Your task to perform on an android device: Open the calendar and show me this week's events? Image 0: 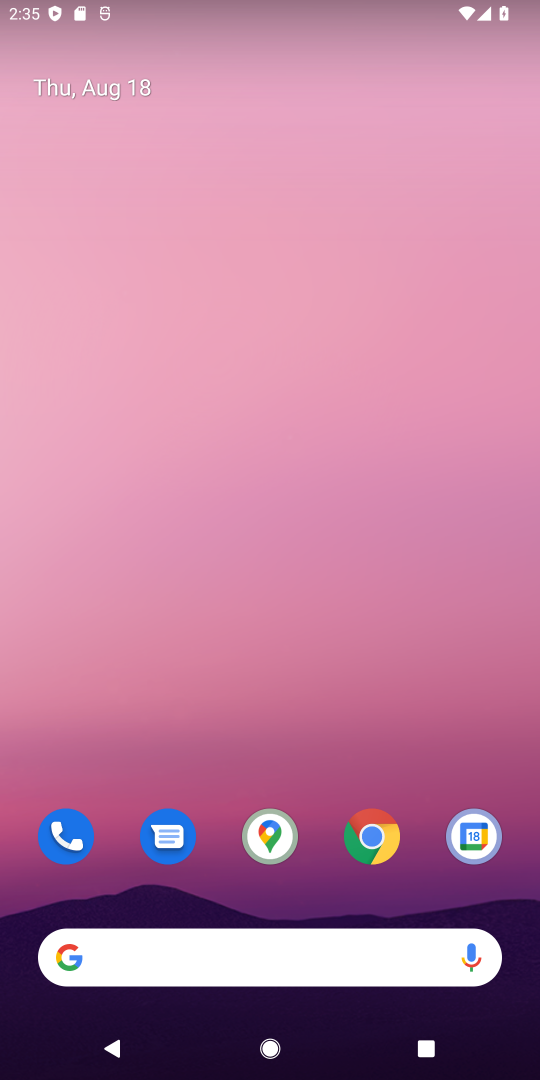
Step 0: drag from (208, 1005) to (263, 11)
Your task to perform on an android device: Open the calendar and show me this week's events? Image 1: 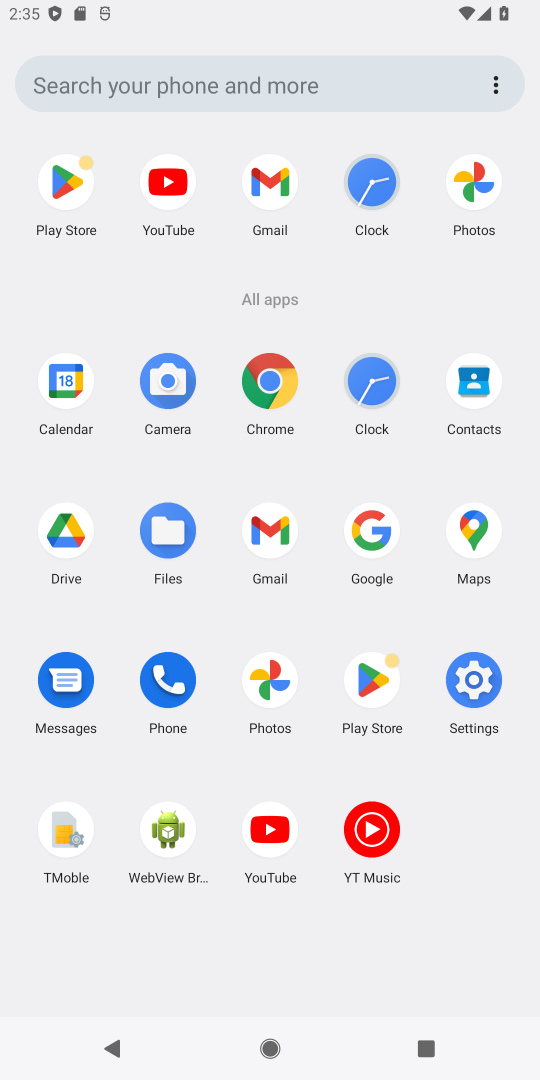
Step 1: click (56, 369)
Your task to perform on an android device: Open the calendar and show me this week's events? Image 2: 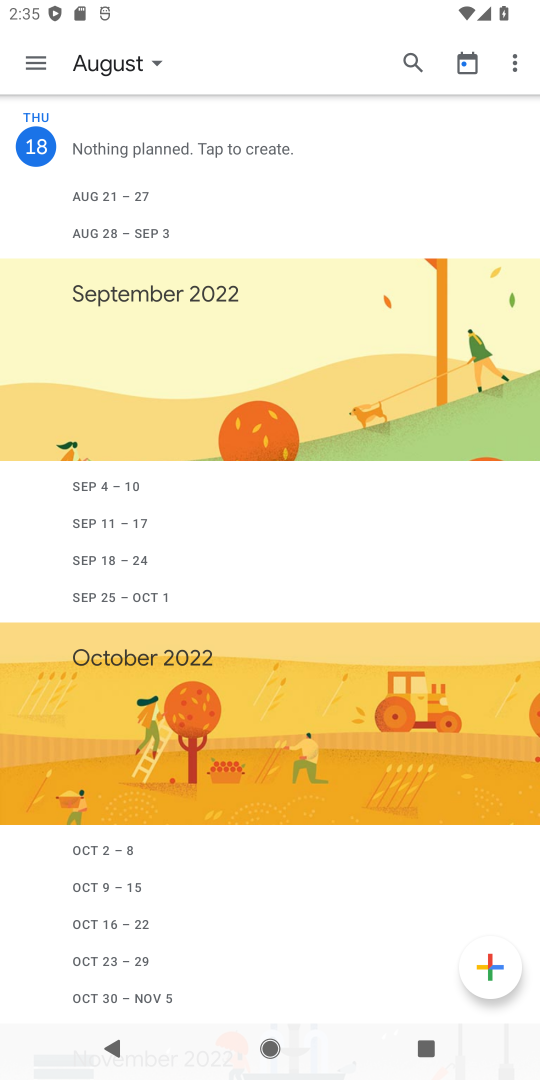
Step 2: click (32, 57)
Your task to perform on an android device: Open the calendar and show me this week's events? Image 3: 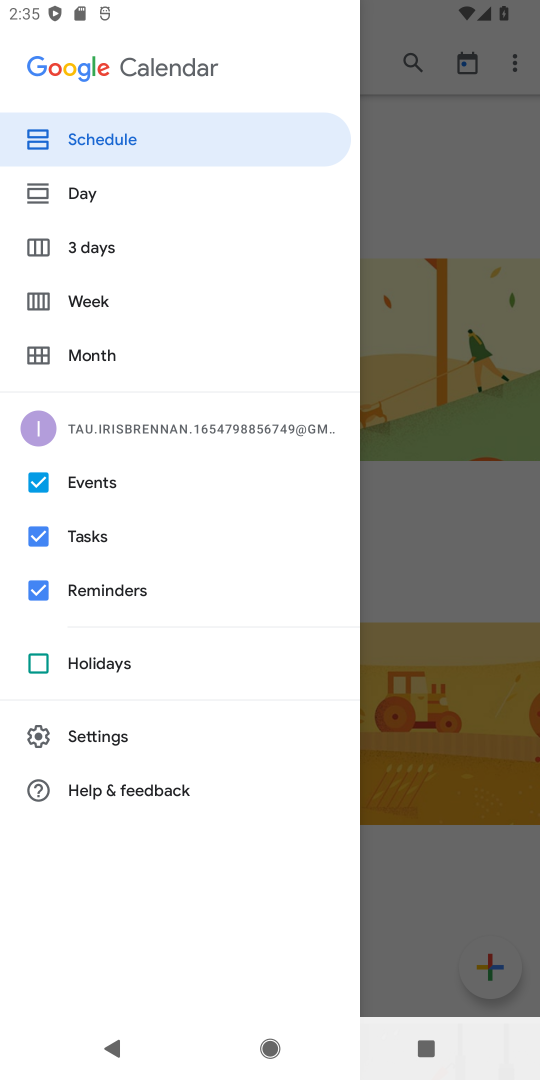
Step 3: click (155, 314)
Your task to perform on an android device: Open the calendar and show me this week's events? Image 4: 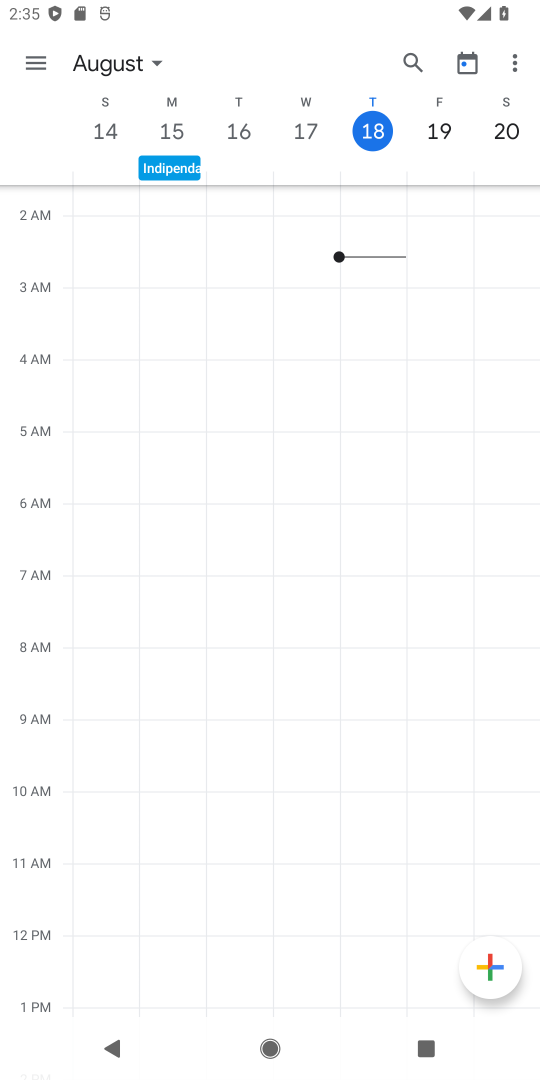
Step 4: drag from (479, 147) to (12, 87)
Your task to perform on an android device: Open the calendar and show me this week's events? Image 5: 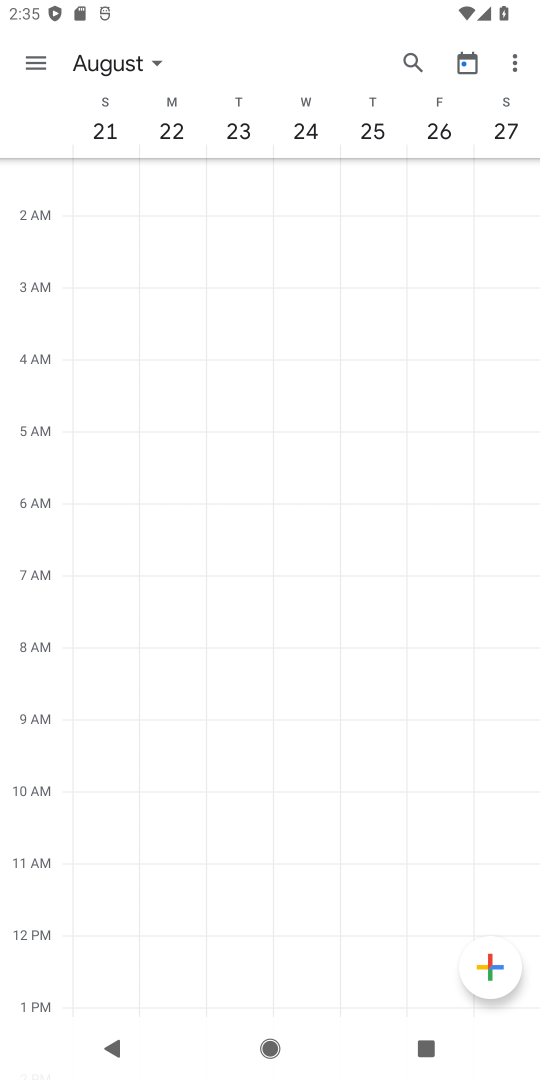
Step 5: drag from (496, 147) to (115, 7)
Your task to perform on an android device: Open the calendar and show me this week's events? Image 6: 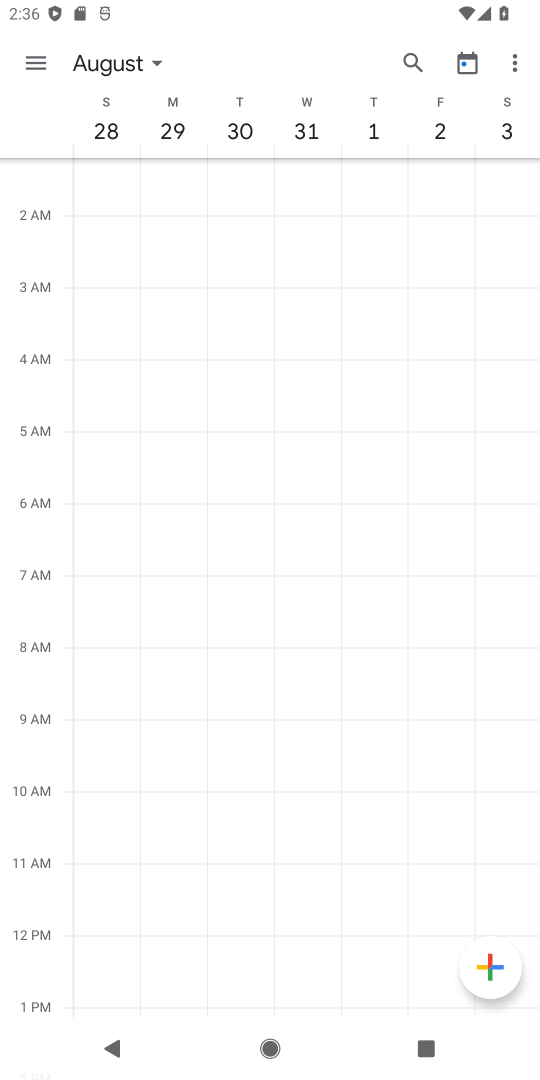
Step 6: drag from (475, 146) to (18, 133)
Your task to perform on an android device: Open the calendar and show me this week's events? Image 7: 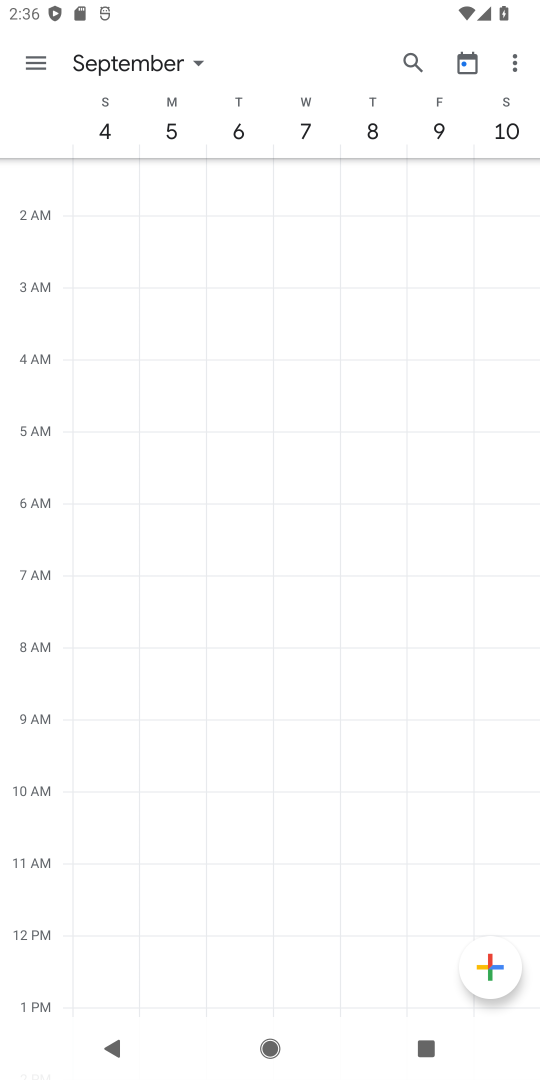
Step 7: drag from (439, 142) to (57, 80)
Your task to perform on an android device: Open the calendar and show me this week's events? Image 8: 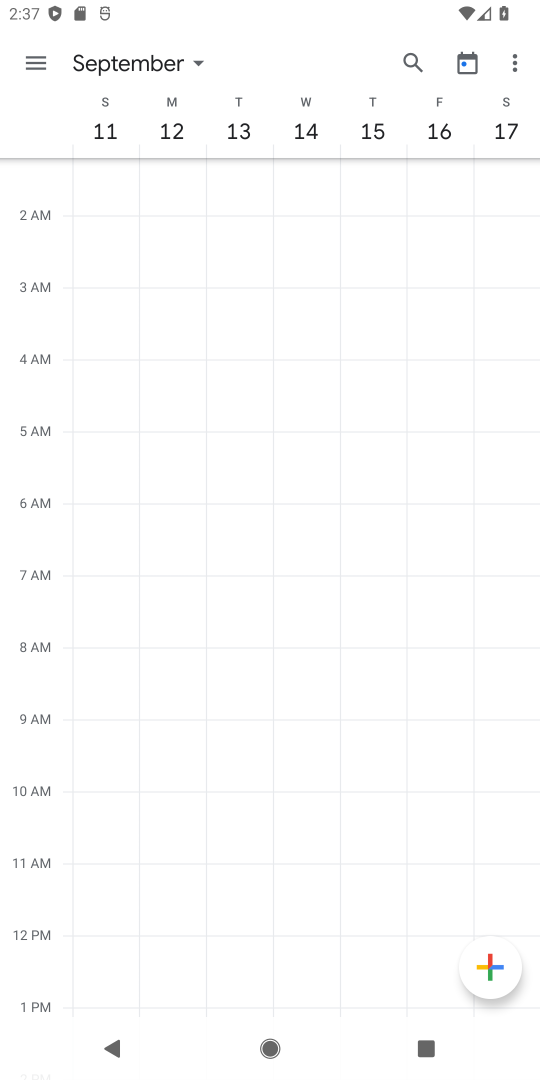
Step 8: click (39, 46)
Your task to perform on an android device: Open the calendar and show me this week's events? Image 9: 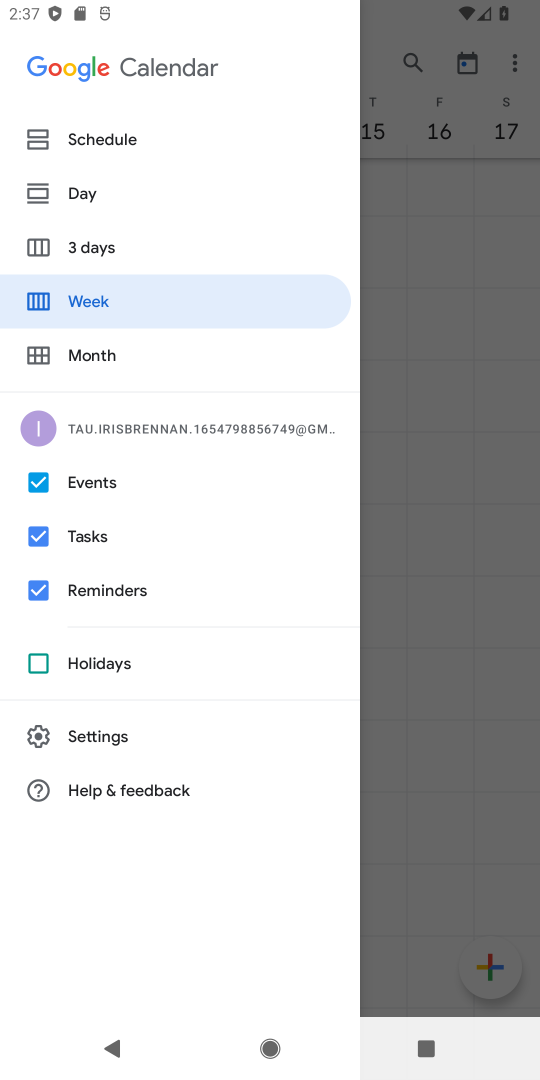
Step 9: click (113, 300)
Your task to perform on an android device: Open the calendar and show me this week's events? Image 10: 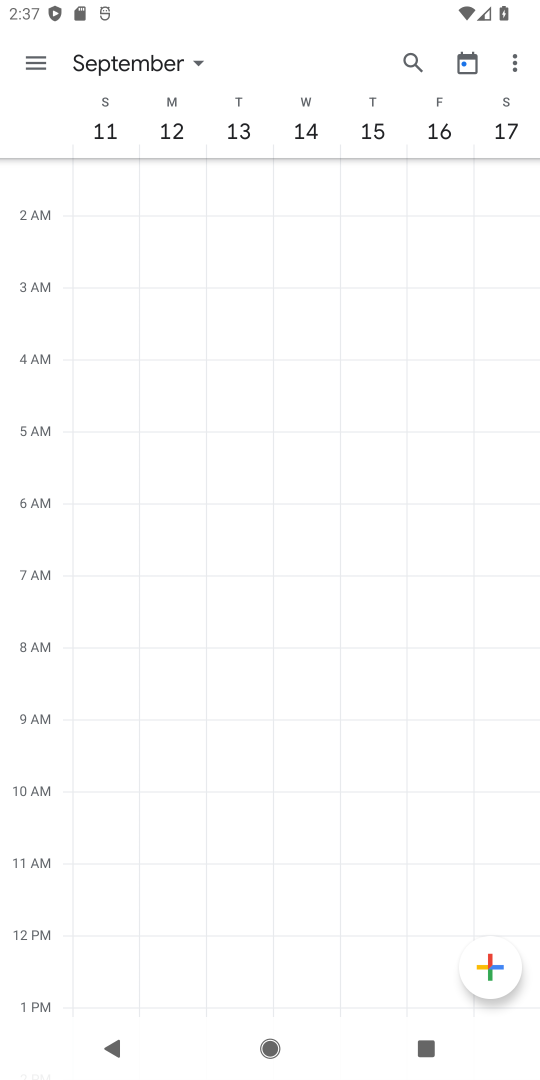
Step 10: click (175, 113)
Your task to perform on an android device: Open the calendar and show me this week's events? Image 11: 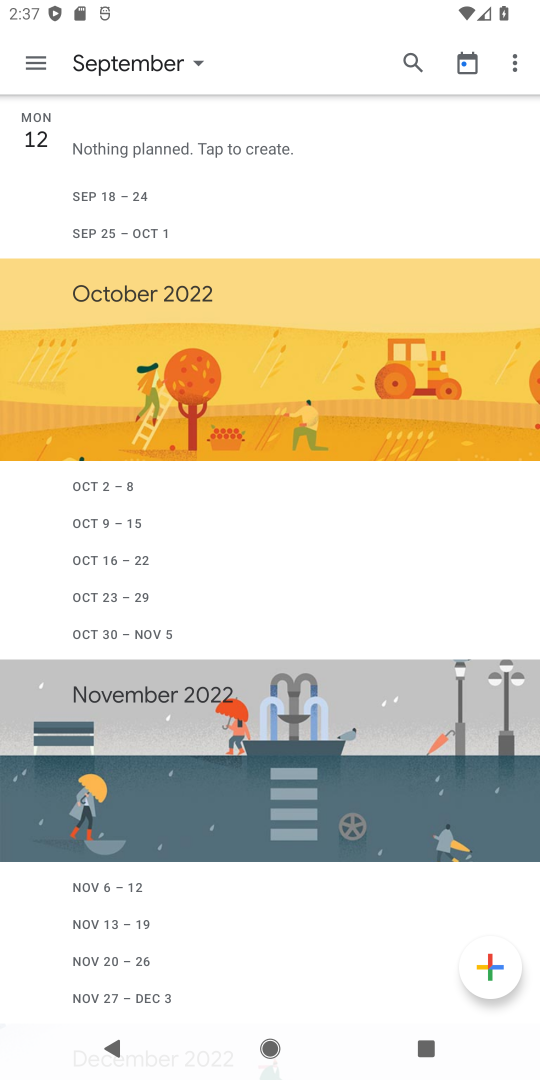
Step 11: task complete